Your task to perform on an android device: set the stopwatch Image 0: 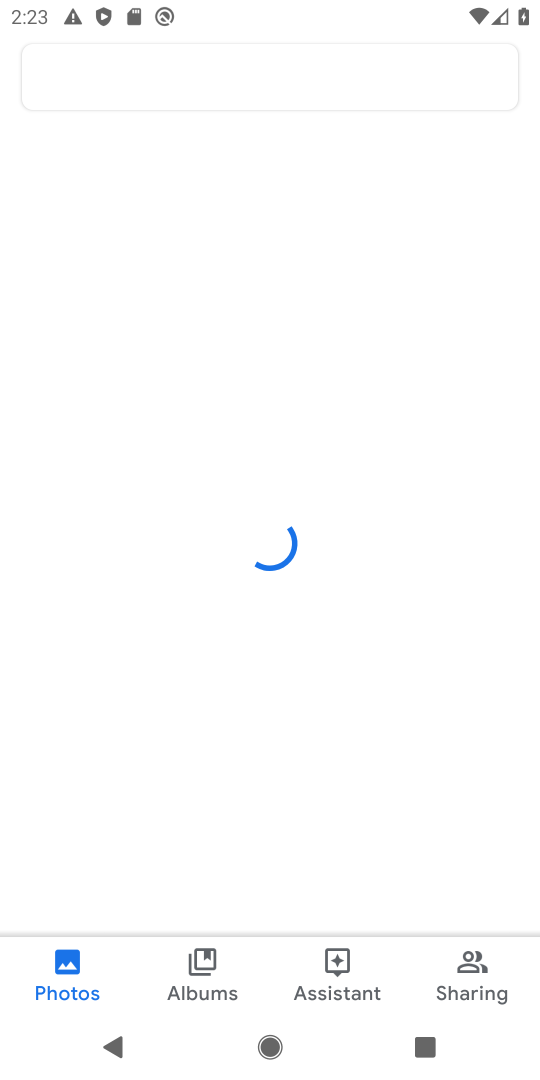
Step 0: press back button
Your task to perform on an android device: set the stopwatch Image 1: 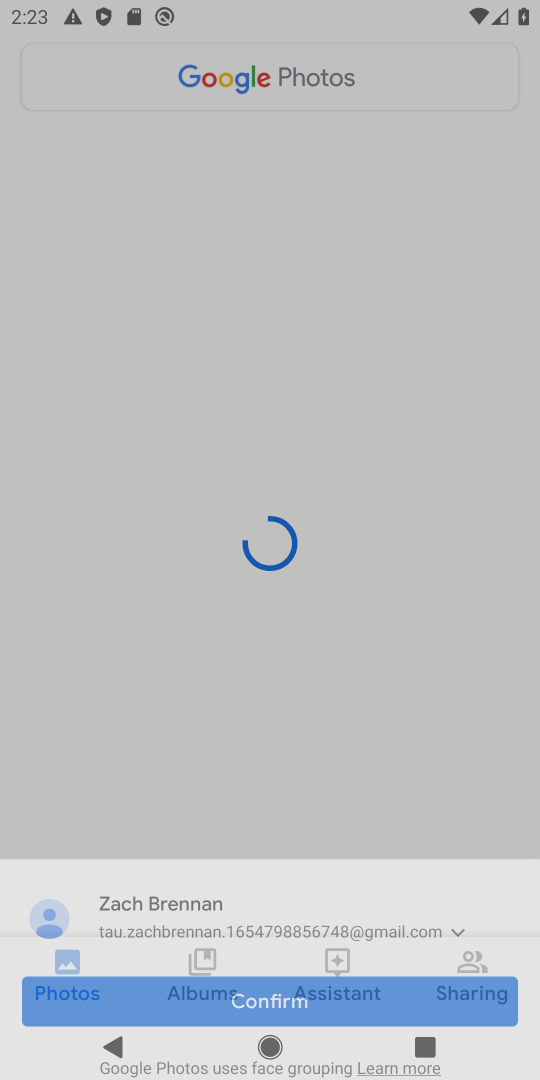
Step 1: press back button
Your task to perform on an android device: set the stopwatch Image 2: 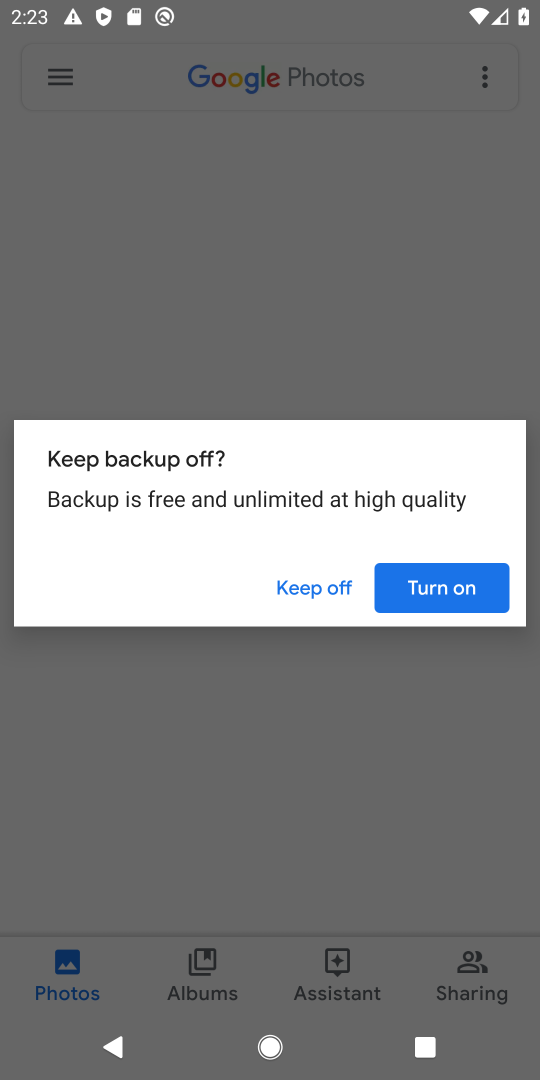
Step 2: press home button
Your task to perform on an android device: set the stopwatch Image 3: 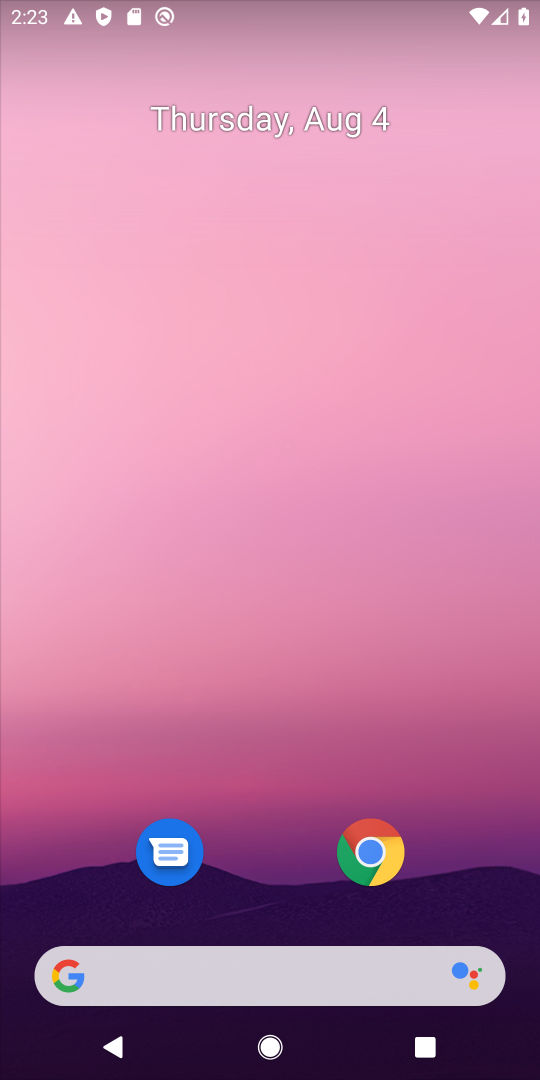
Step 3: drag from (237, 810) to (339, 14)
Your task to perform on an android device: set the stopwatch Image 4: 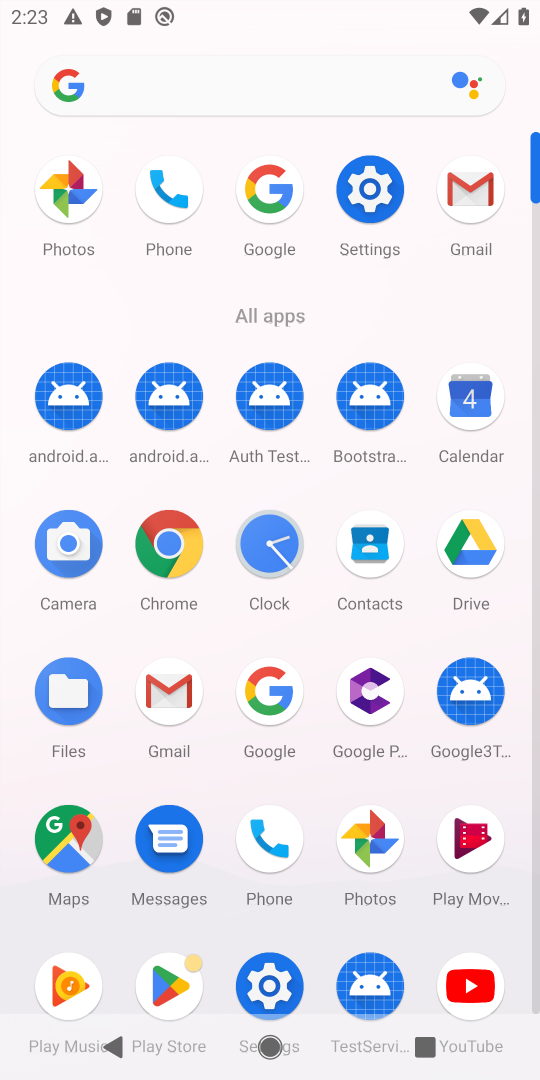
Step 4: click (278, 561)
Your task to perform on an android device: set the stopwatch Image 5: 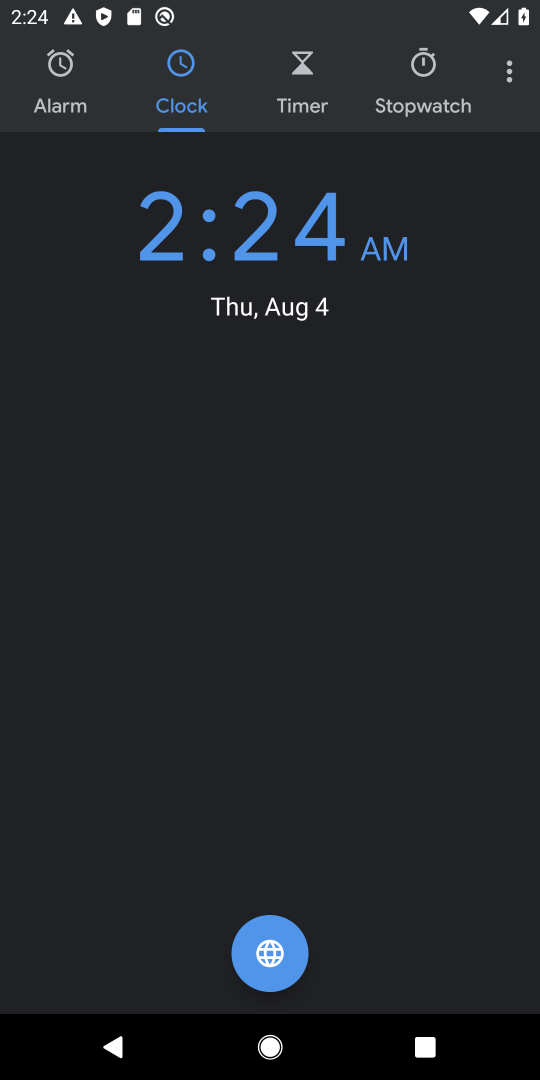
Step 5: click (424, 96)
Your task to perform on an android device: set the stopwatch Image 6: 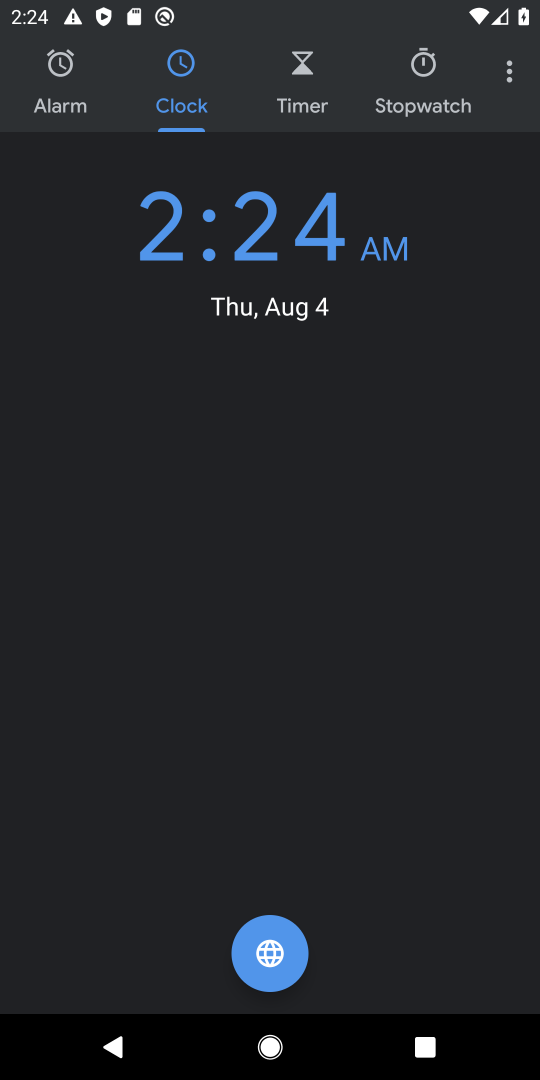
Step 6: click (413, 95)
Your task to perform on an android device: set the stopwatch Image 7: 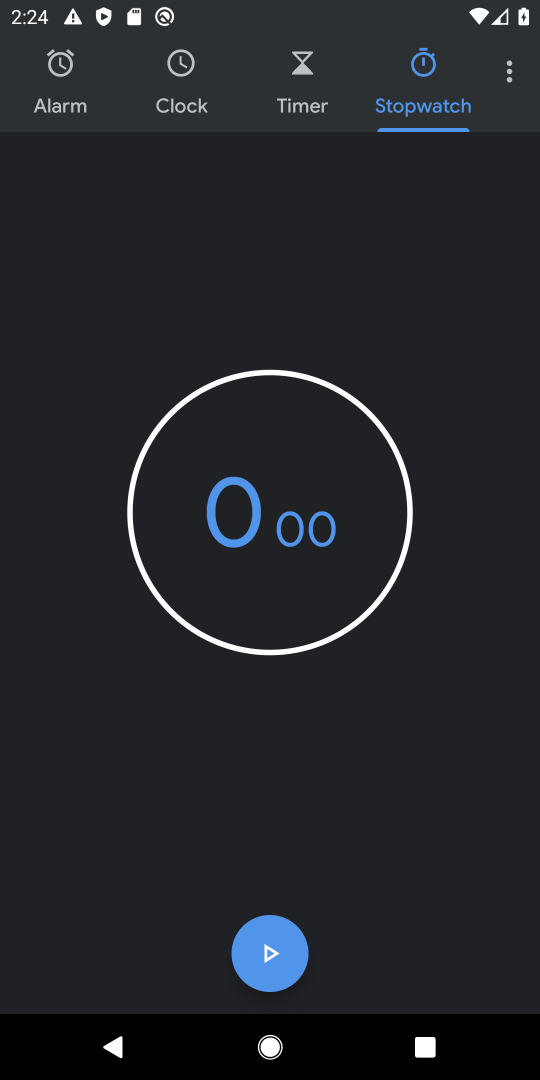
Step 7: task complete